Your task to perform on an android device: toggle location history Image 0: 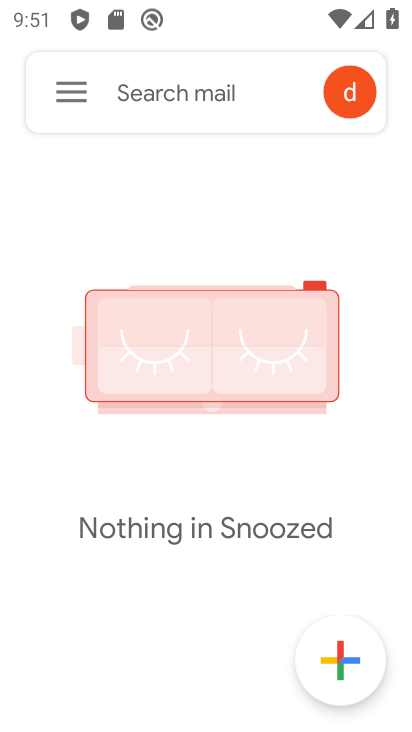
Step 0: press home button
Your task to perform on an android device: toggle location history Image 1: 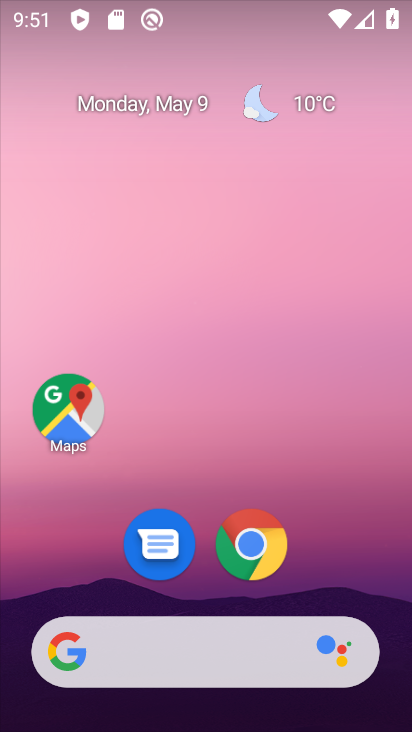
Step 1: drag from (387, 526) to (366, 214)
Your task to perform on an android device: toggle location history Image 2: 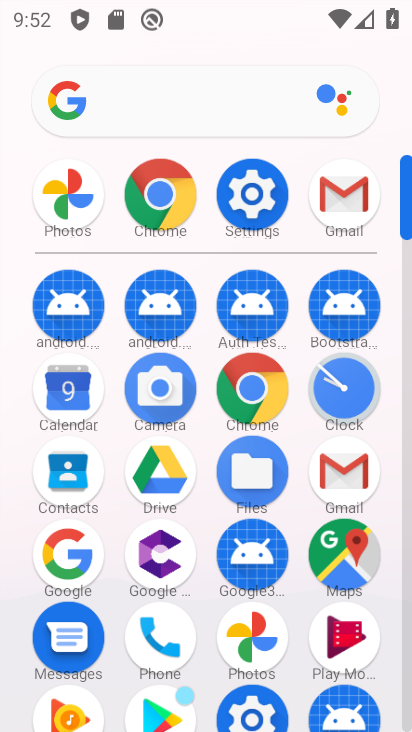
Step 2: click (251, 389)
Your task to perform on an android device: toggle location history Image 3: 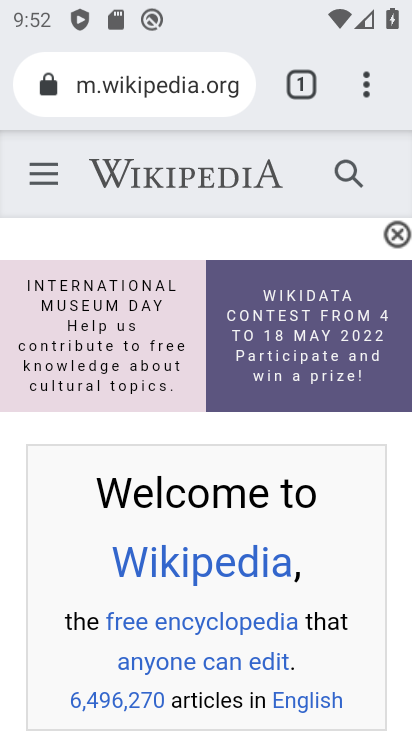
Step 3: press back button
Your task to perform on an android device: toggle location history Image 4: 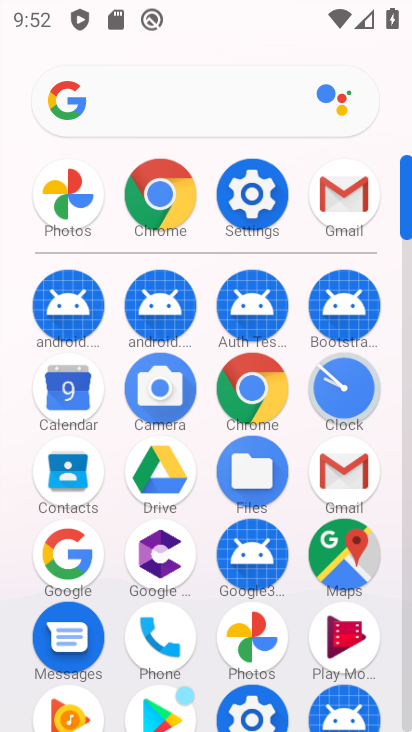
Step 4: click (262, 198)
Your task to perform on an android device: toggle location history Image 5: 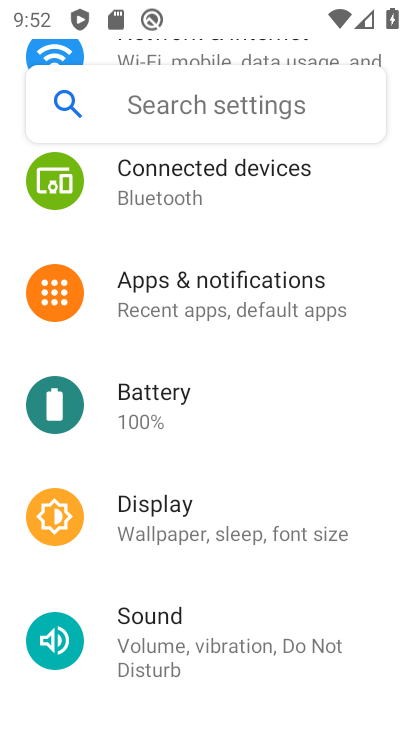
Step 5: drag from (367, 693) to (353, 307)
Your task to perform on an android device: toggle location history Image 6: 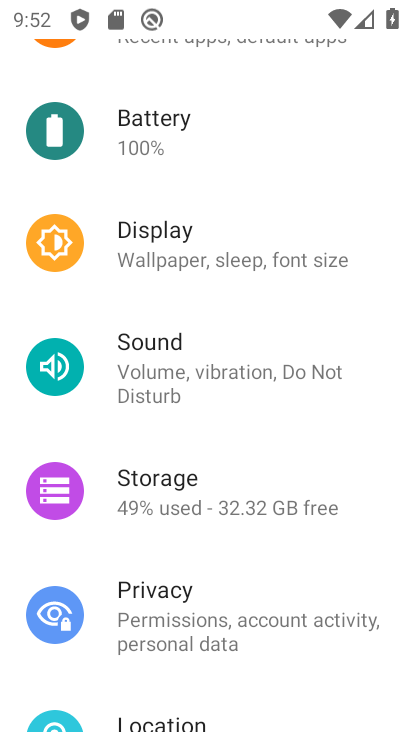
Step 6: drag from (355, 571) to (325, 315)
Your task to perform on an android device: toggle location history Image 7: 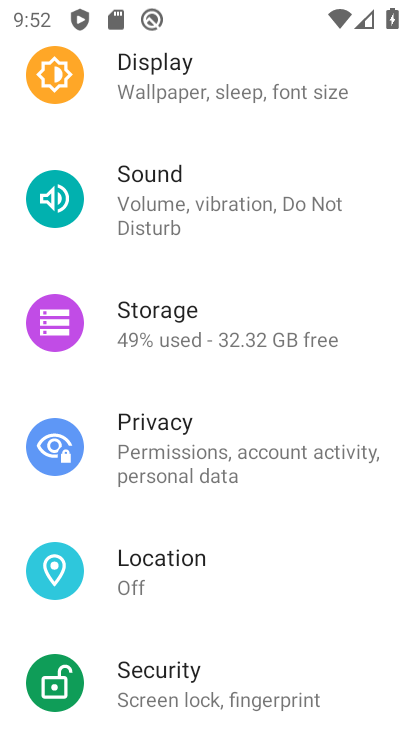
Step 7: click (118, 577)
Your task to perform on an android device: toggle location history Image 8: 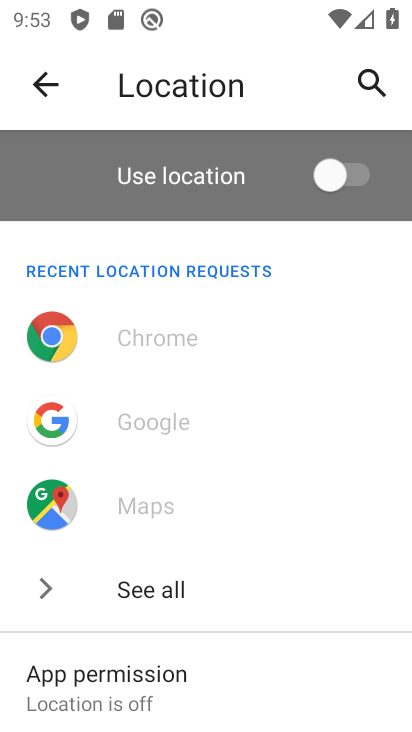
Step 8: task complete